Your task to perform on an android device: Clear the cart on bestbuy. Image 0: 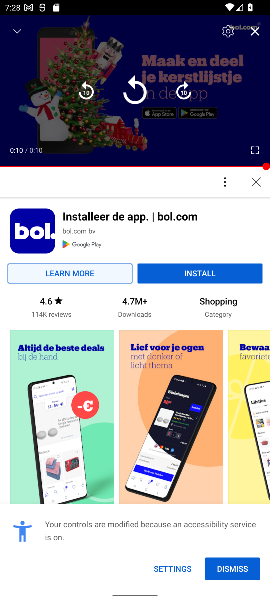
Step 0: press home button
Your task to perform on an android device: Clear the cart on bestbuy. Image 1: 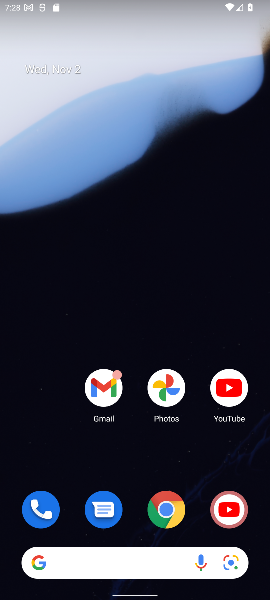
Step 1: click (125, 551)
Your task to perform on an android device: Clear the cart on bestbuy. Image 2: 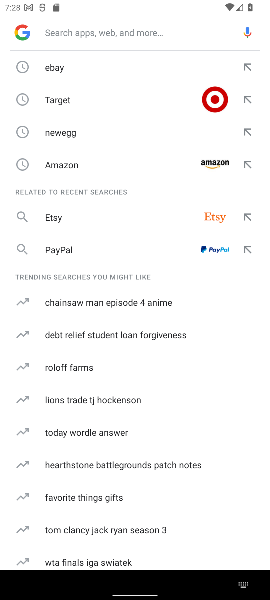
Step 2: type "bestbuy"
Your task to perform on an android device: Clear the cart on bestbuy. Image 3: 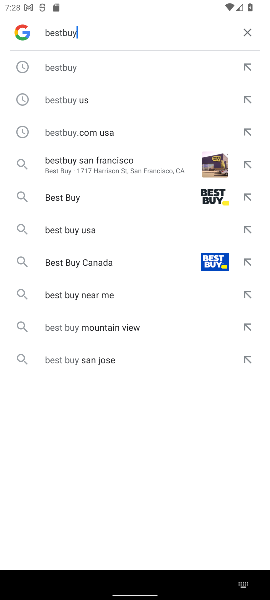
Step 3: click (63, 67)
Your task to perform on an android device: Clear the cart on bestbuy. Image 4: 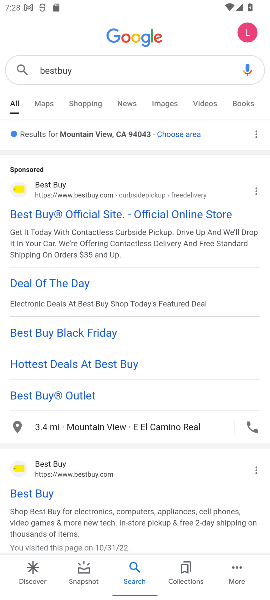
Step 4: click (54, 462)
Your task to perform on an android device: Clear the cart on bestbuy. Image 5: 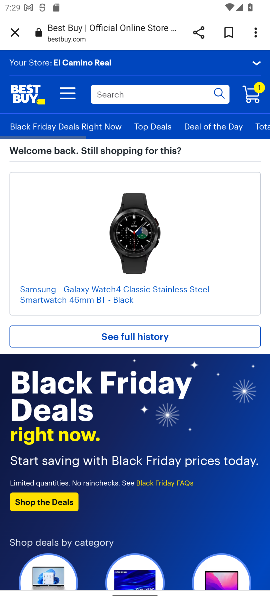
Step 5: click (262, 96)
Your task to perform on an android device: Clear the cart on bestbuy. Image 6: 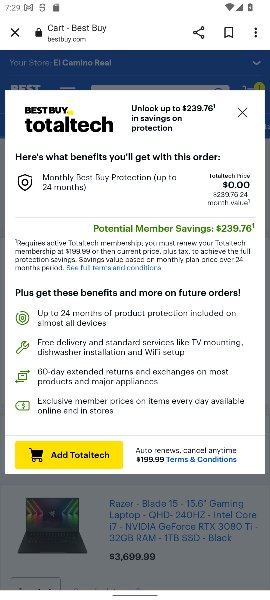
Step 6: click (245, 113)
Your task to perform on an android device: Clear the cart on bestbuy. Image 7: 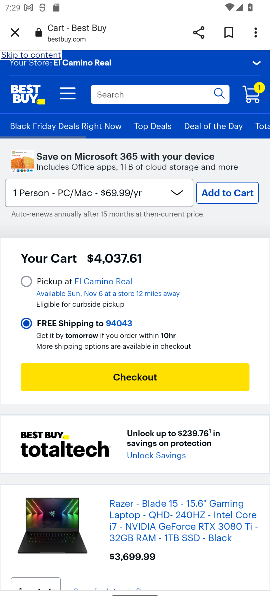
Step 7: drag from (227, 430) to (197, 306)
Your task to perform on an android device: Clear the cart on bestbuy. Image 8: 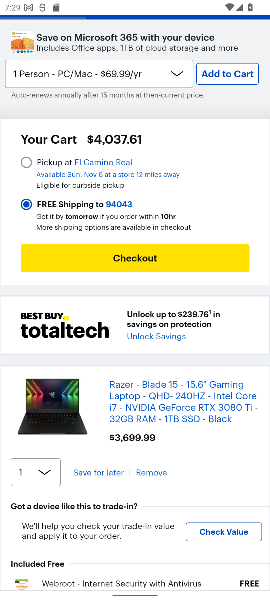
Step 8: click (150, 473)
Your task to perform on an android device: Clear the cart on bestbuy. Image 9: 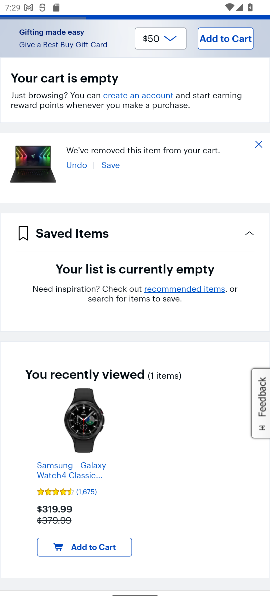
Step 9: task complete